Your task to perform on an android device: turn on translation in the chrome app Image 0: 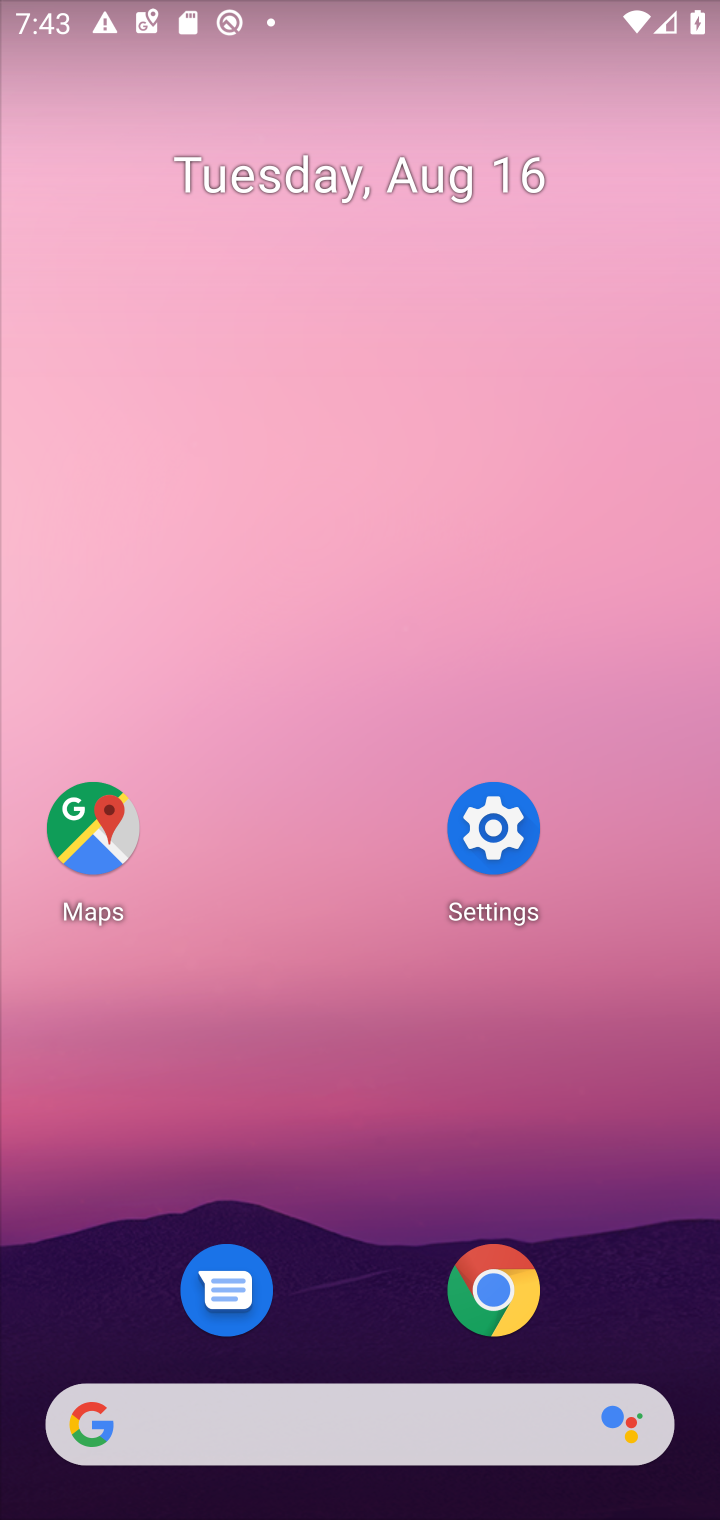
Step 0: press home button
Your task to perform on an android device: turn on translation in the chrome app Image 1: 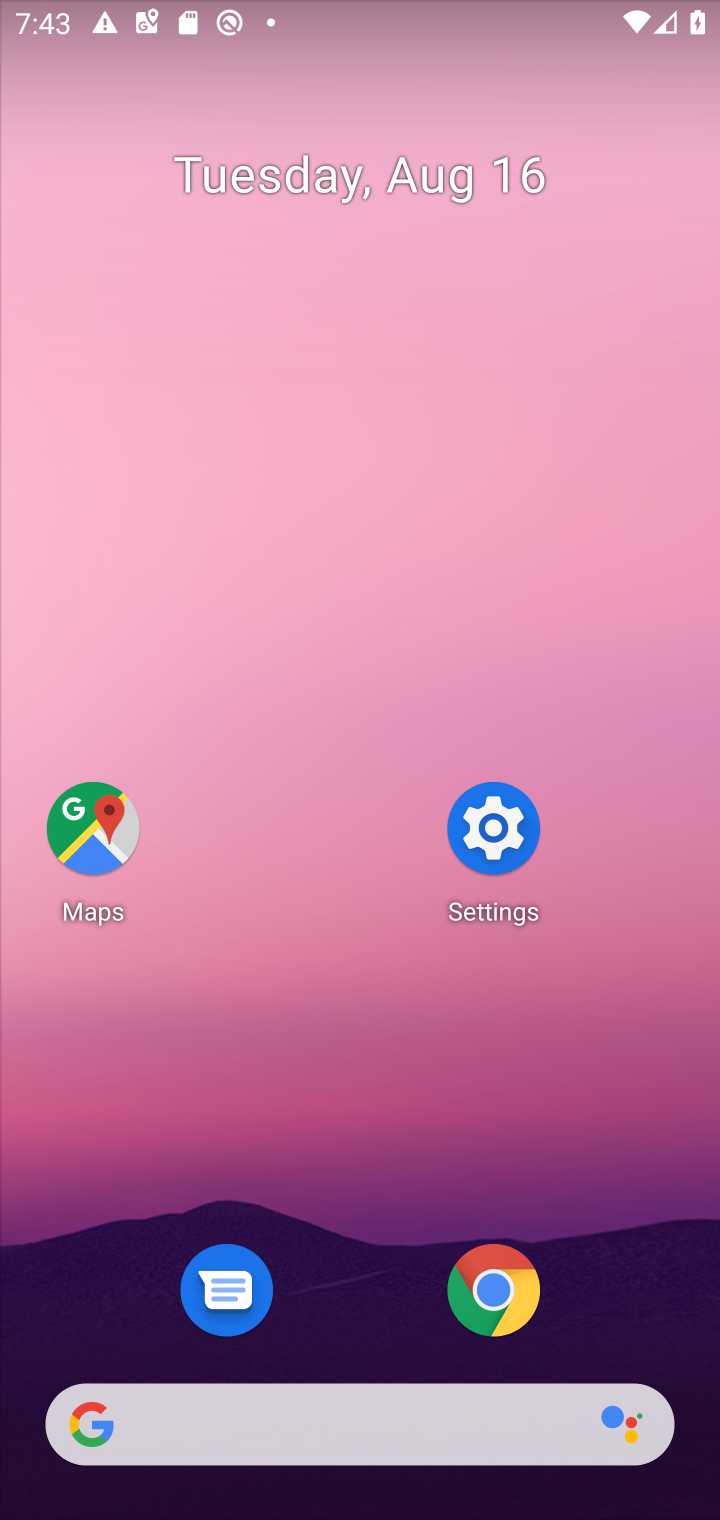
Step 1: click (492, 1284)
Your task to perform on an android device: turn on translation in the chrome app Image 2: 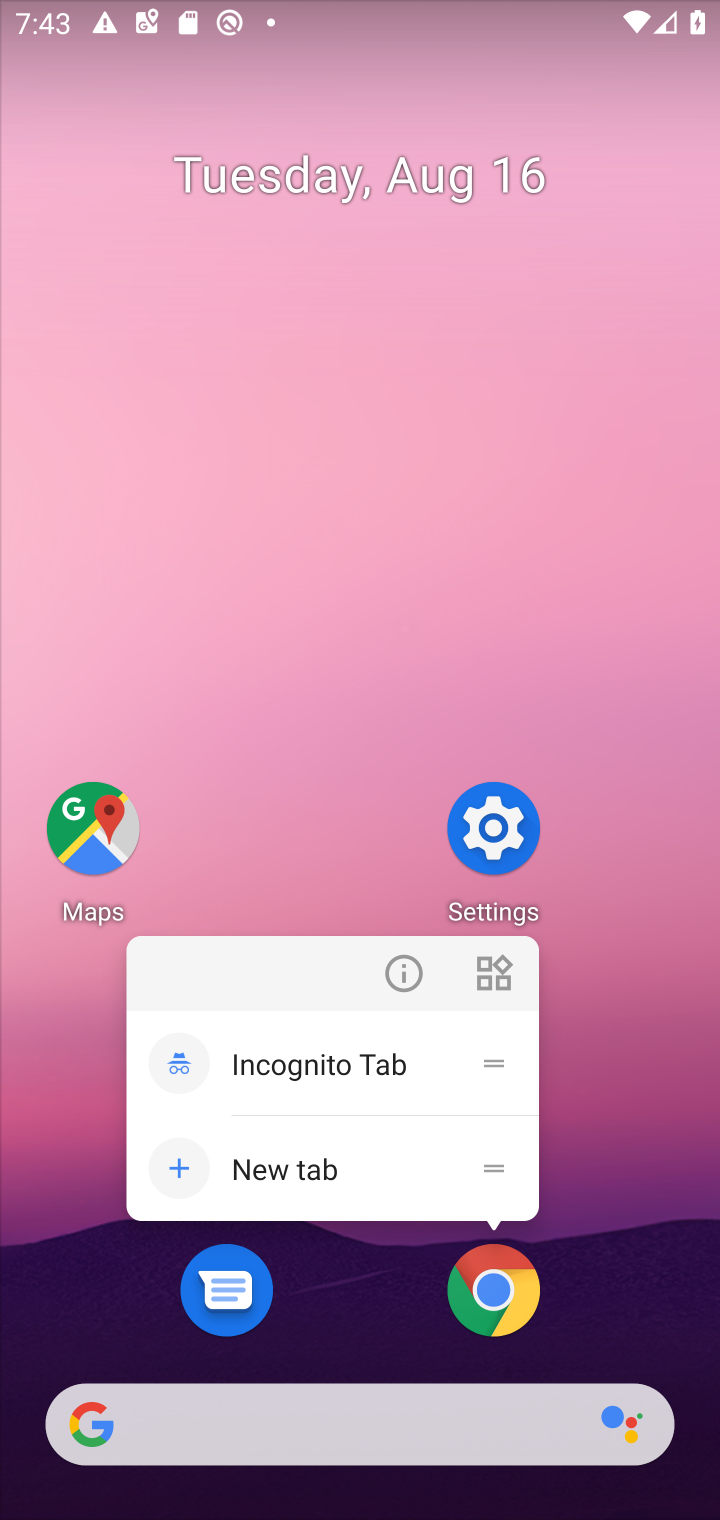
Step 2: click (492, 1295)
Your task to perform on an android device: turn on translation in the chrome app Image 3: 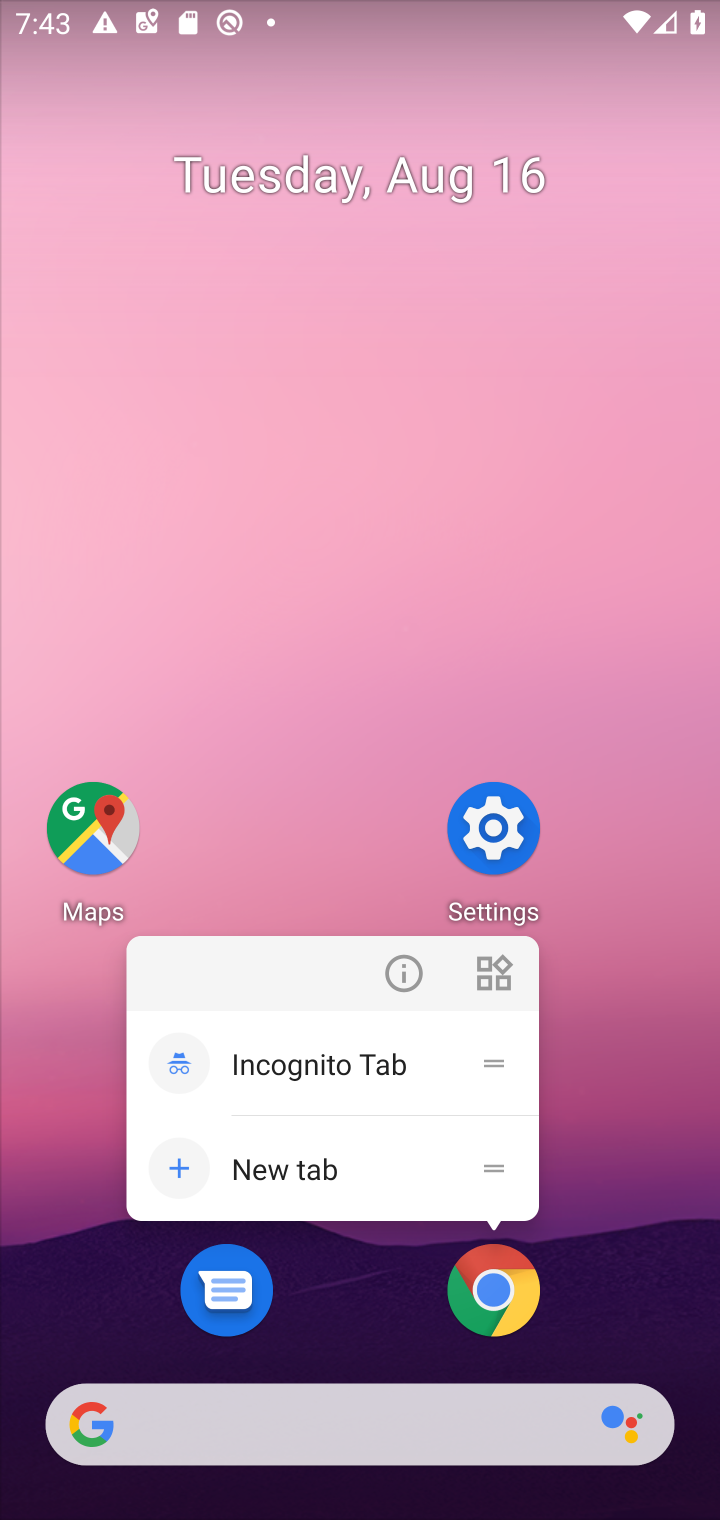
Step 3: click (497, 1307)
Your task to perform on an android device: turn on translation in the chrome app Image 4: 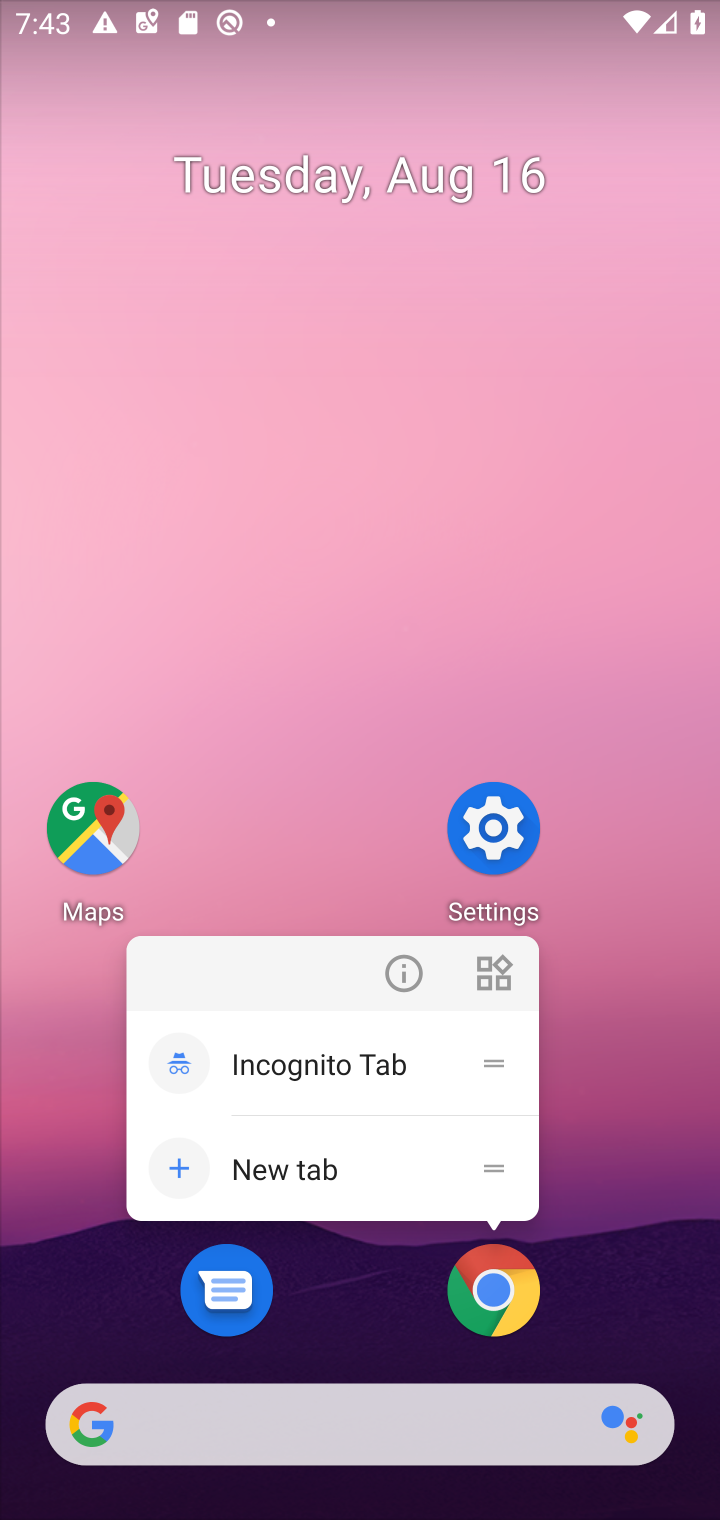
Step 4: click (485, 1349)
Your task to perform on an android device: turn on translation in the chrome app Image 5: 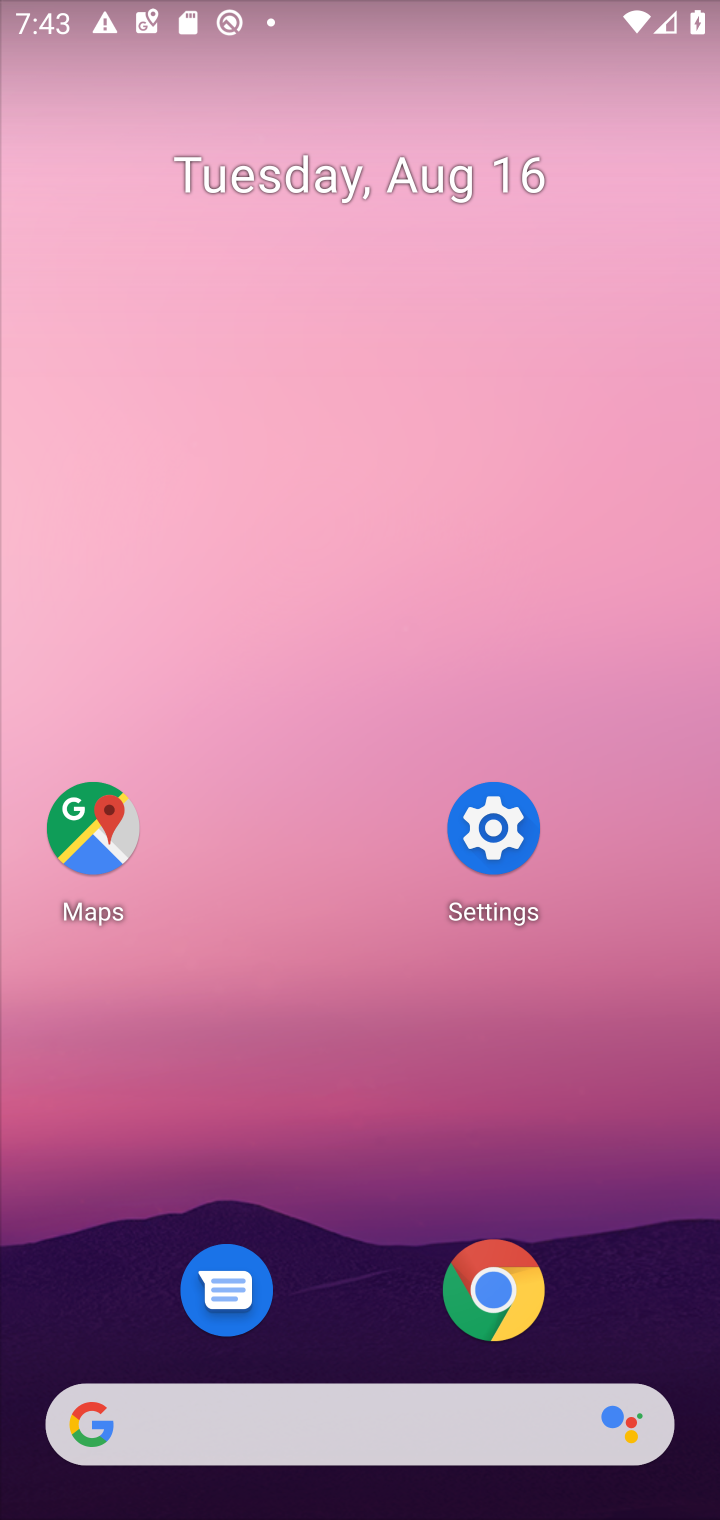
Step 5: click (494, 1307)
Your task to perform on an android device: turn on translation in the chrome app Image 6: 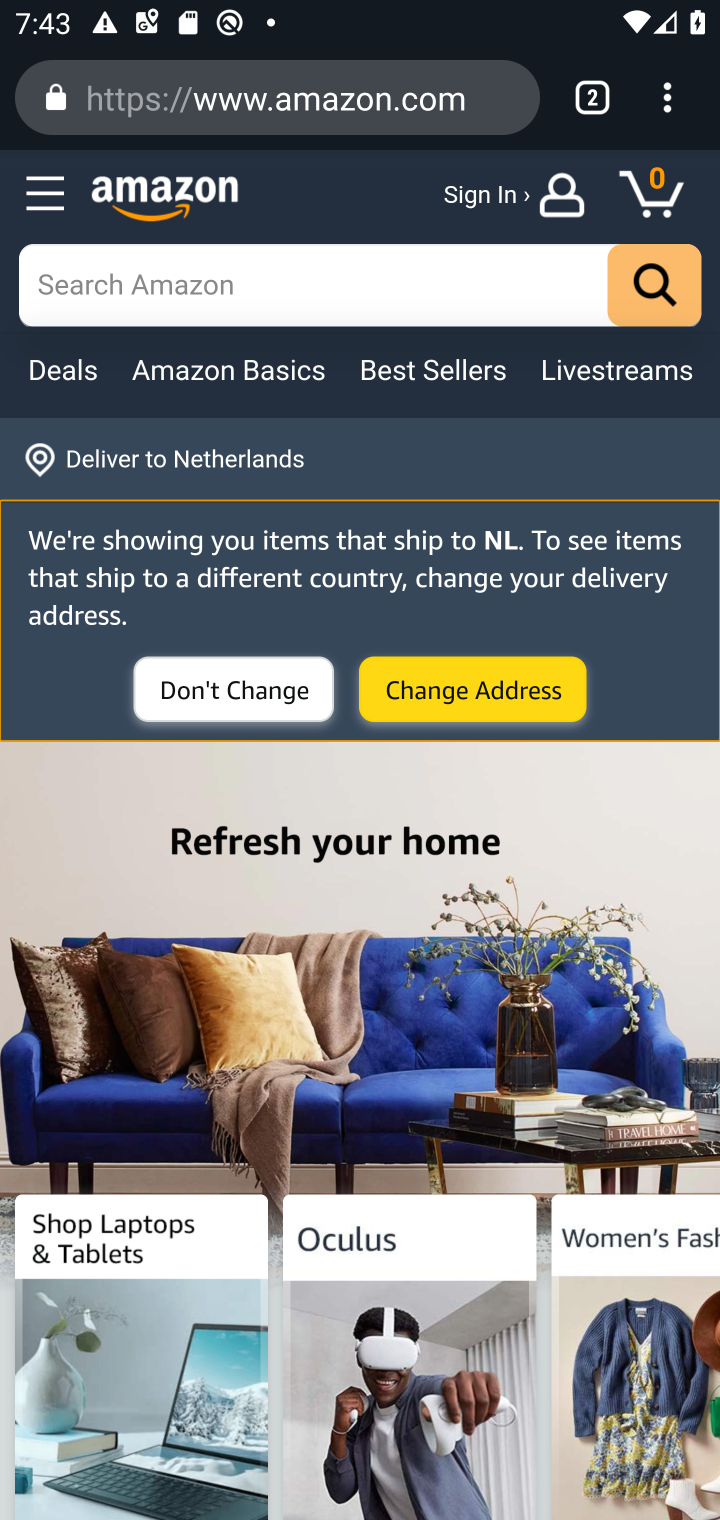
Step 6: drag from (661, 101) to (413, 1295)
Your task to perform on an android device: turn on translation in the chrome app Image 7: 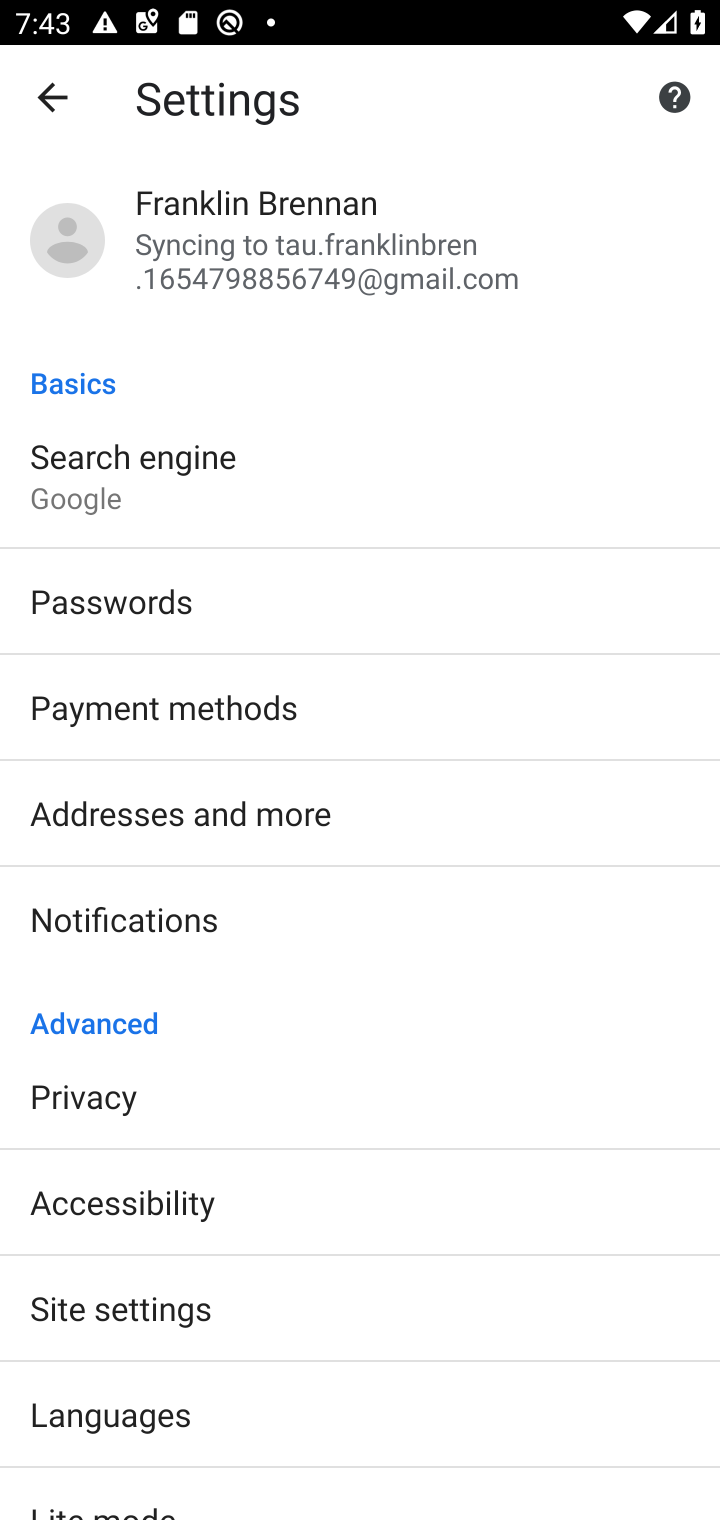
Step 7: click (149, 1415)
Your task to perform on an android device: turn on translation in the chrome app Image 8: 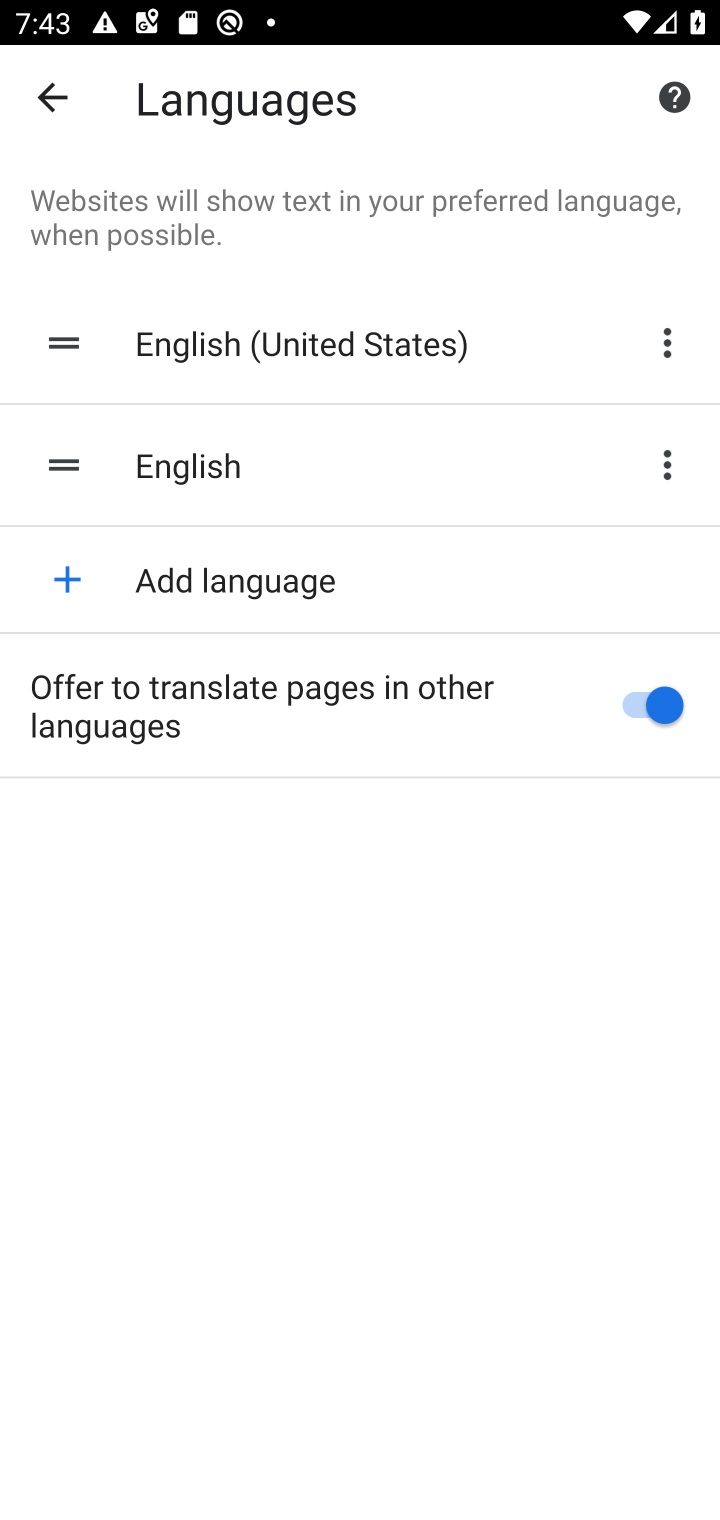
Step 8: task complete